Your task to perform on an android device: change your default location settings in chrome Image 0: 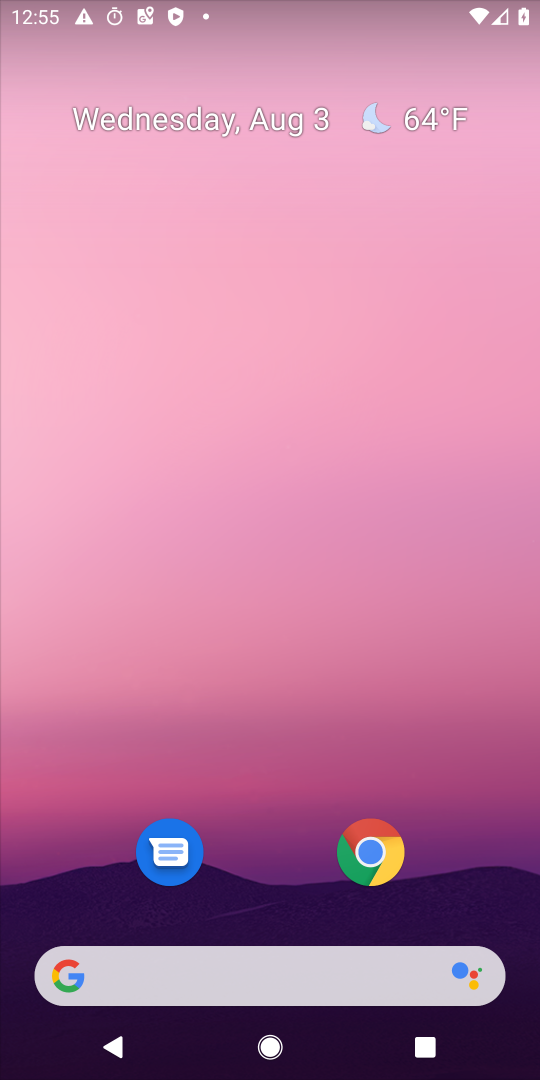
Step 0: drag from (474, 915) to (134, 71)
Your task to perform on an android device: change your default location settings in chrome Image 1: 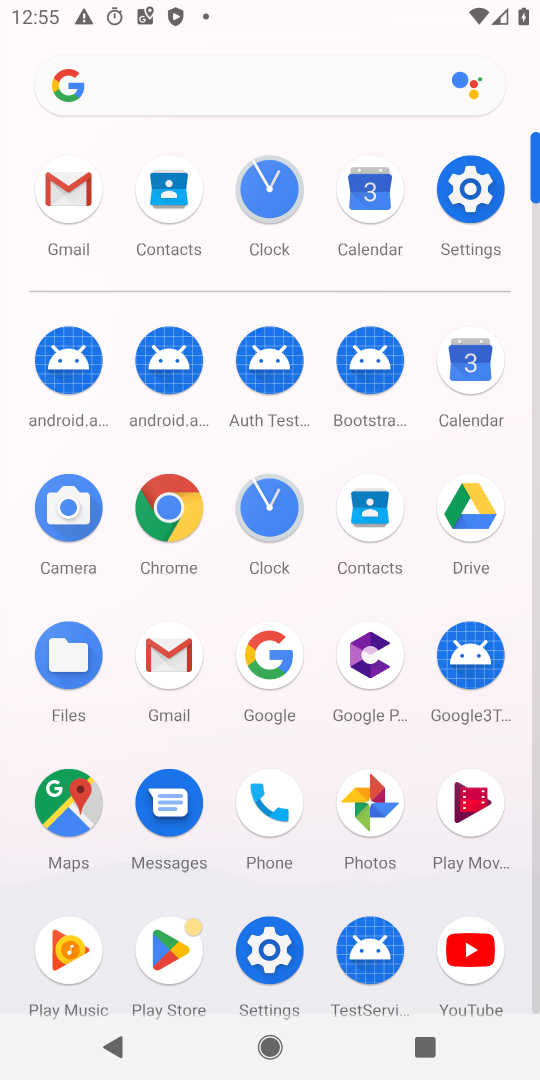
Step 1: click (153, 516)
Your task to perform on an android device: change your default location settings in chrome Image 2: 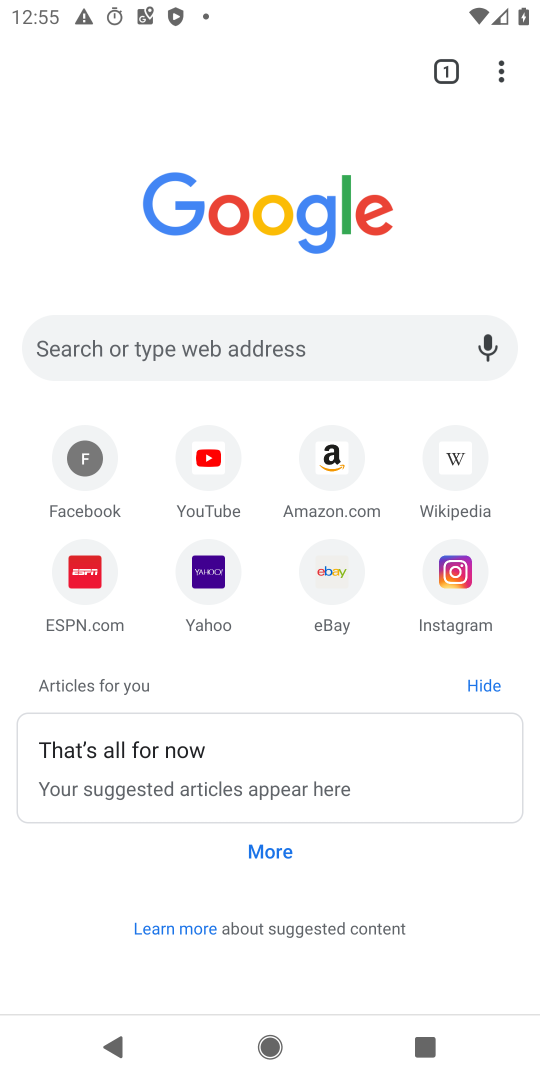
Step 2: click (496, 65)
Your task to perform on an android device: change your default location settings in chrome Image 3: 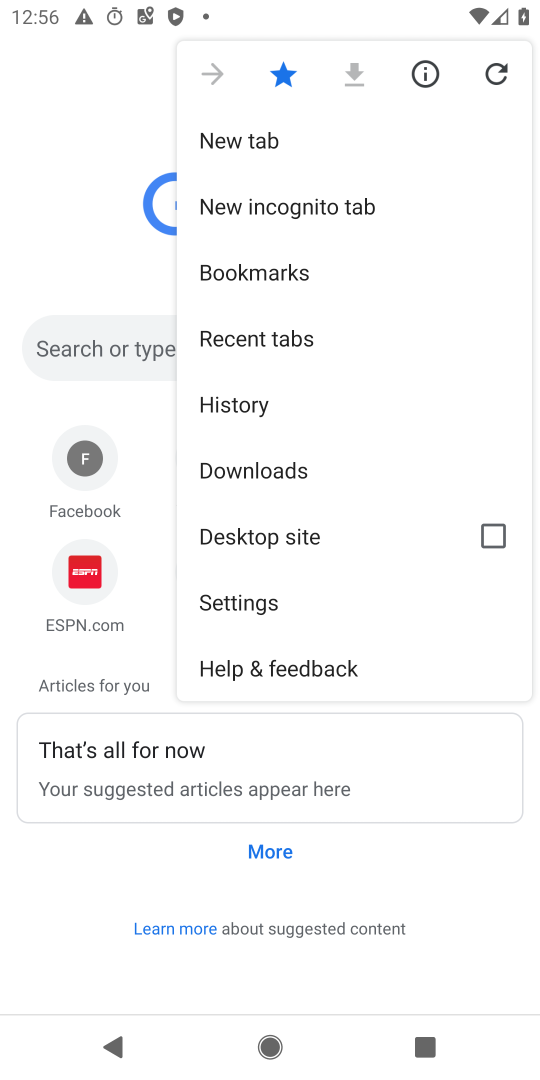
Step 3: click (326, 601)
Your task to perform on an android device: change your default location settings in chrome Image 4: 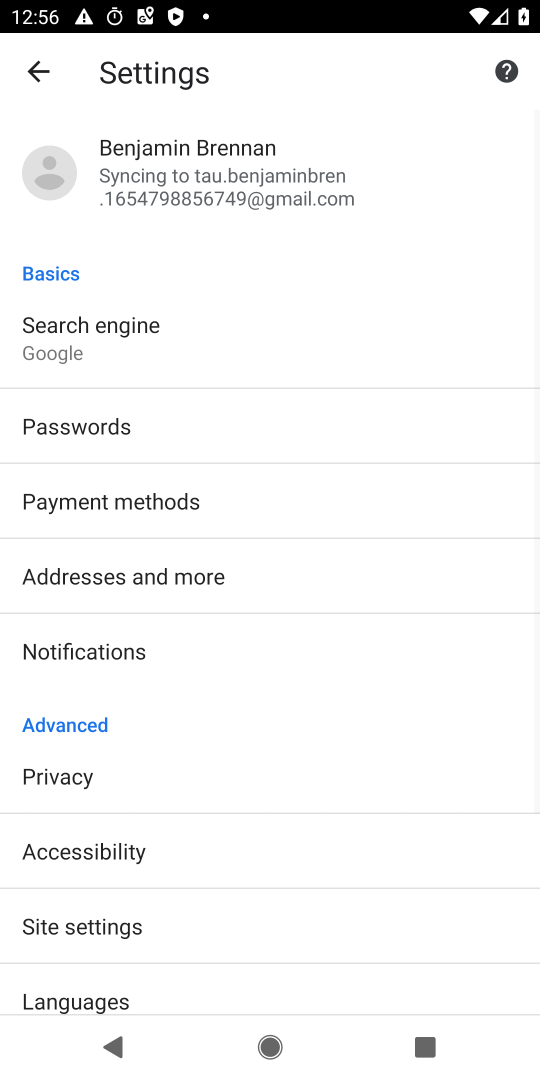
Step 4: click (89, 344)
Your task to perform on an android device: change your default location settings in chrome Image 5: 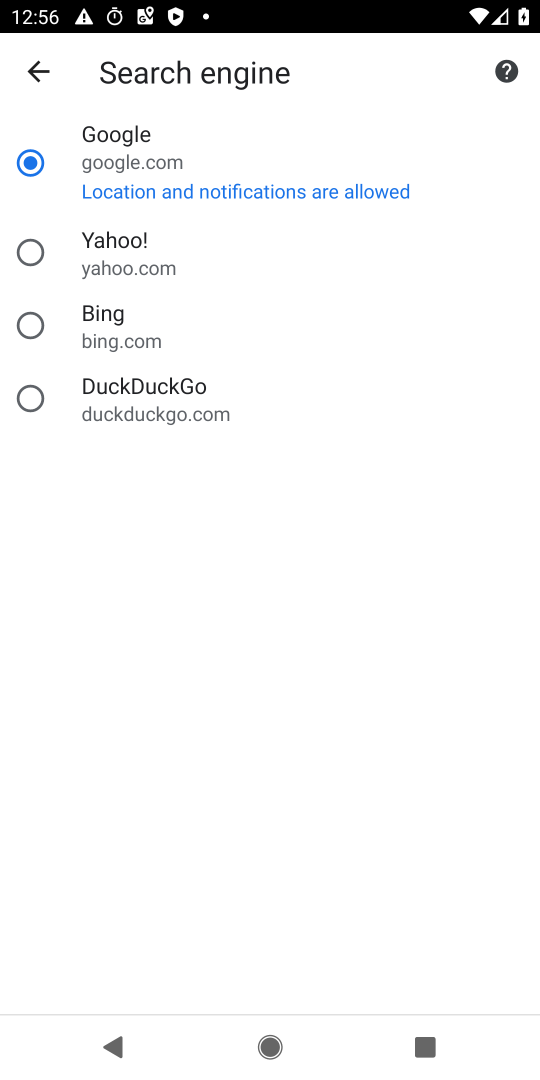
Step 5: click (141, 311)
Your task to perform on an android device: change your default location settings in chrome Image 6: 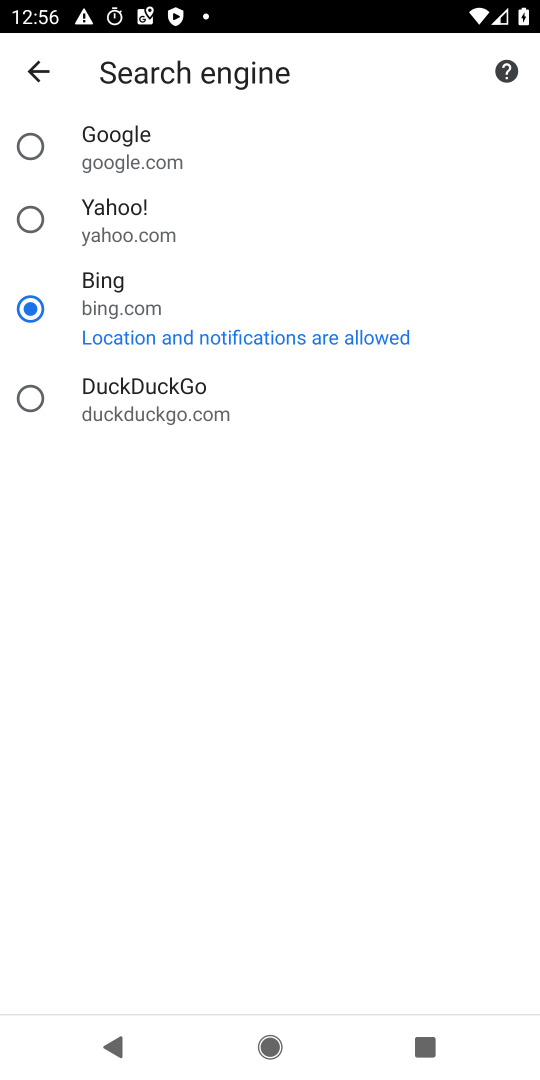
Step 6: task complete